Your task to perform on an android device: find which apps use the phone's location Image 0: 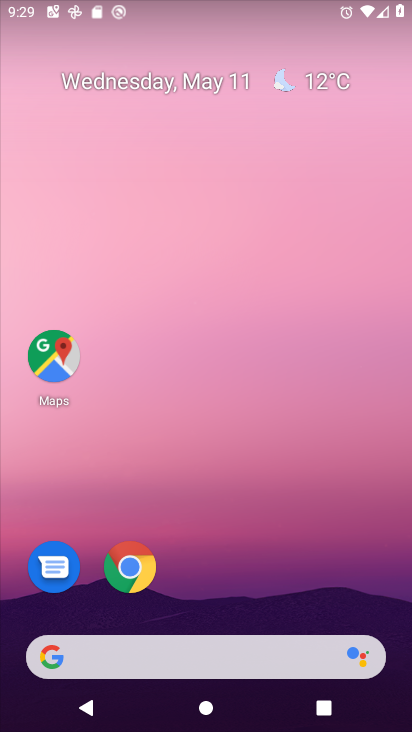
Step 0: drag from (249, 493) to (193, 102)
Your task to perform on an android device: find which apps use the phone's location Image 1: 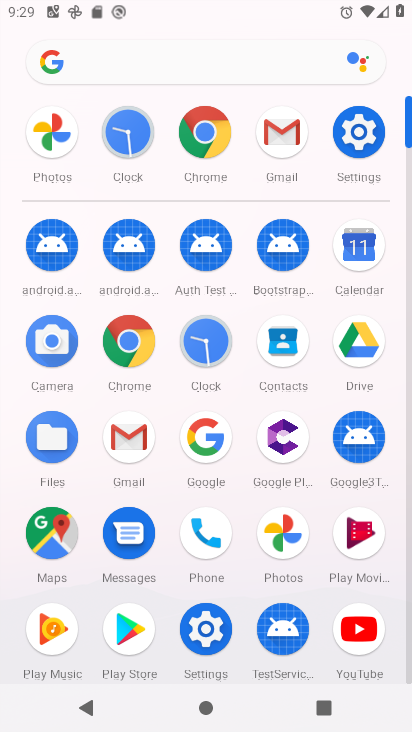
Step 1: click (209, 627)
Your task to perform on an android device: find which apps use the phone's location Image 2: 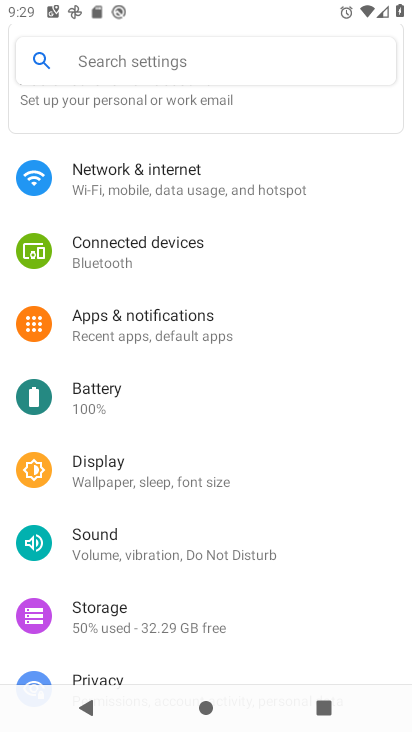
Step 2: drag from (255, 608) to (242, 207)
Your task to perform on an android device: find which apps use the phone's location Image 3: 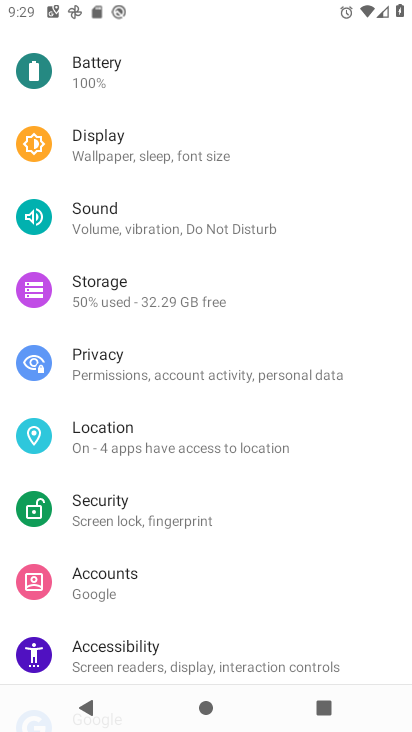
Step 3: click (170, 438)
Your task to perform on an android device: find which apps use the phone's location Image 4: 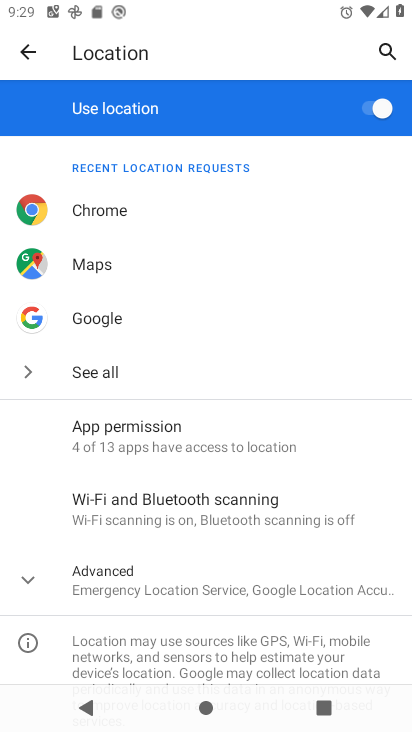
Step 4: click (183, 427)
Your task to perform on an android device: find which apps use the phone's location Image 5: 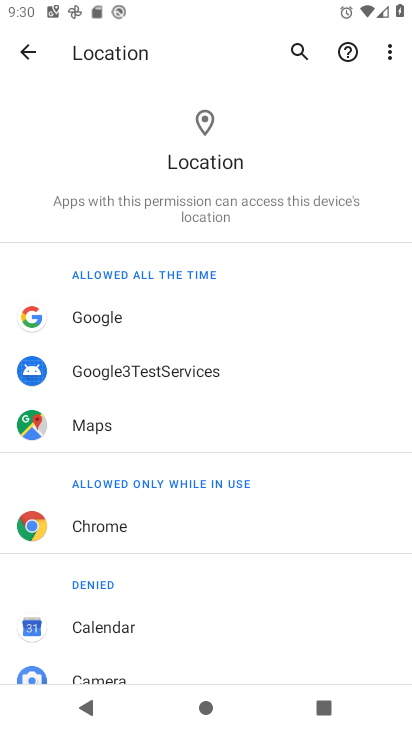
Step 5: task complete